Your task to perform on an android device: toggle notification dots Image 0: 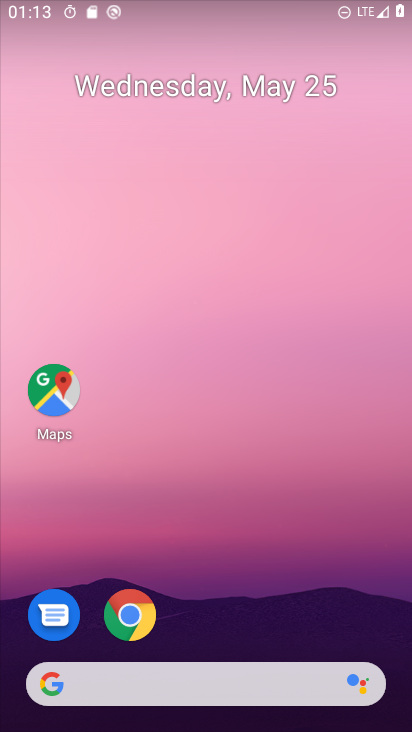
Step 0: press home button
Your task to perform on an android device: toggle notification dots Image 1: 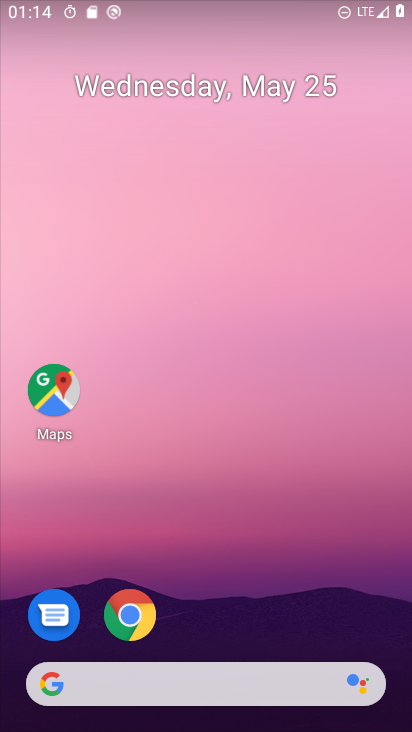
Step 1: drag from (278, 692) to (252, 1)
Your task to perform on an android device: toggle notification dots Image 2: 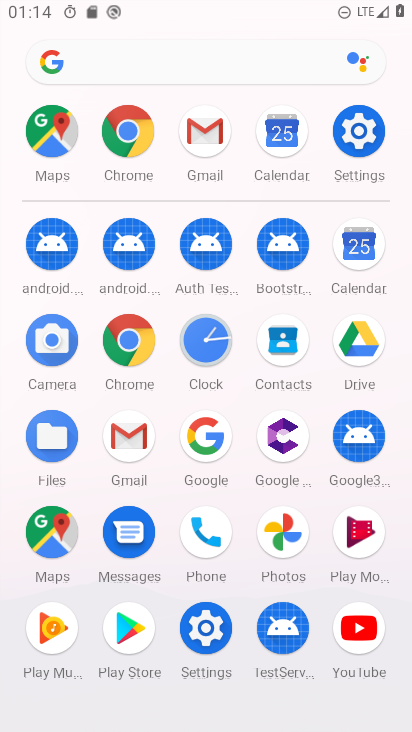
Step 2: click (350, 115)
Your task to perform on an android device: toggle notification dots Image 3: 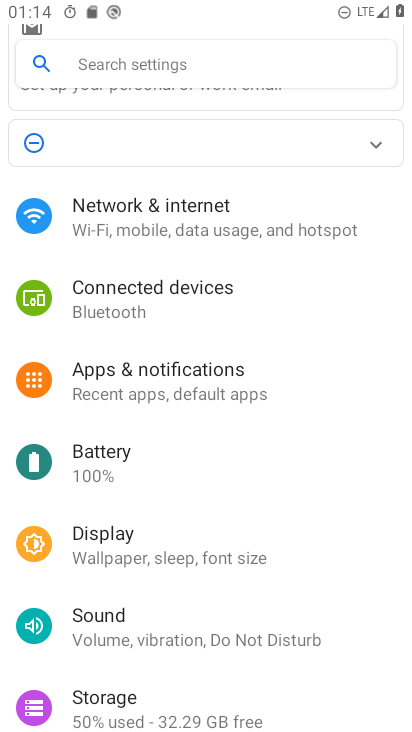
Step 3: click (175, 62)
Your task to perform on an android device: toggle notification dots Image 4: 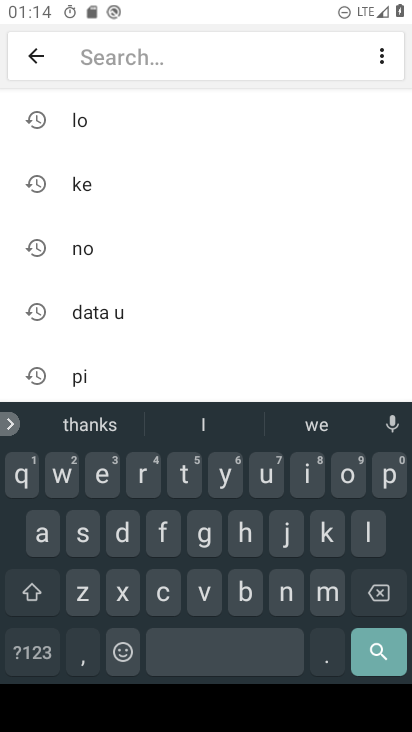
Step 4: click (122, 527)
Your task to perform on an android device: toggle notification dots Image 5: 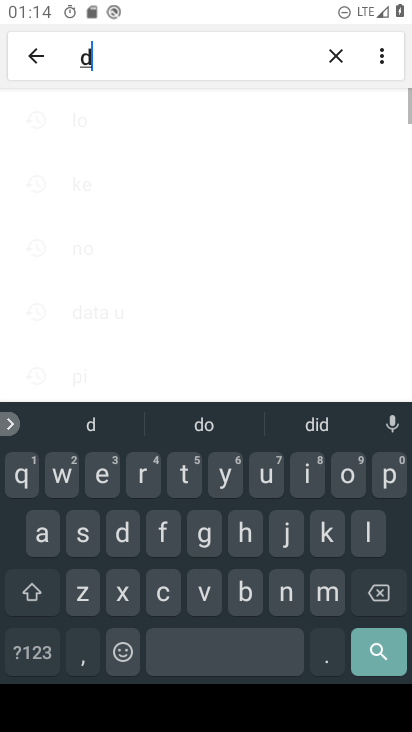
Step 5: click (355, 480)
Your task to perform on an android device: toggle notification dots Image 6: 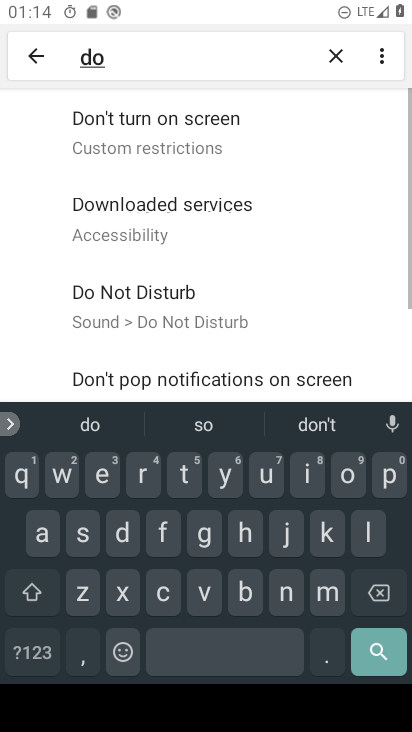
Step 6: click (184, 478)
Your task to perform on an android device: toggle notification dots Image 7: 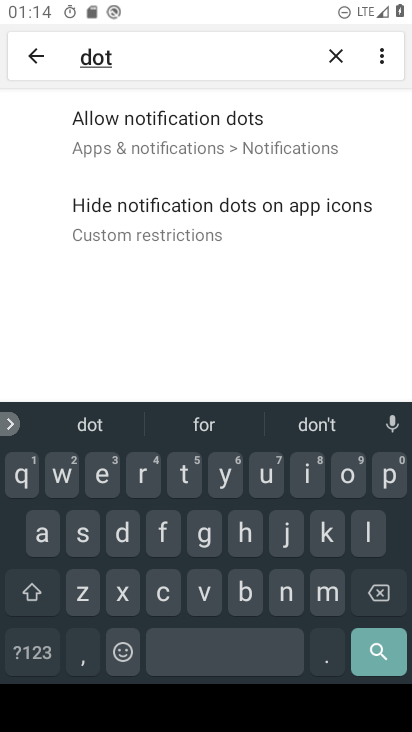
Step 7: click (176, 130)
Your task to perform on an android device: toggle notification dots Image 8: 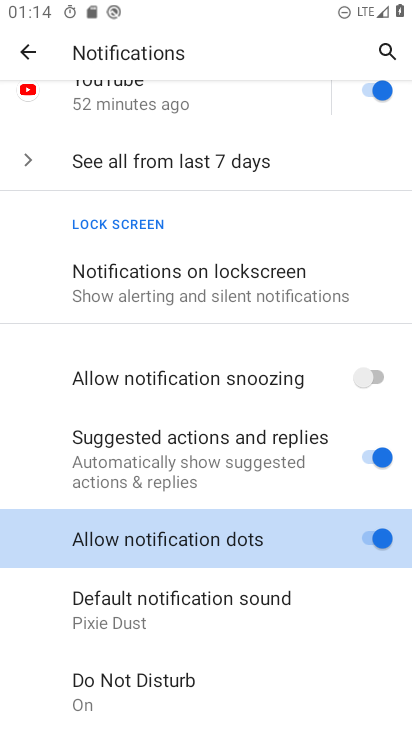
Step 8: task complete